Your task to perform on an android device: create a new album in the google photos Image 0: 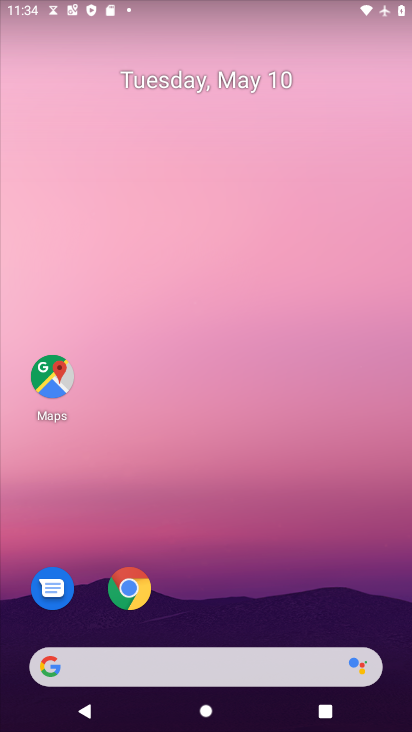
Step 0: drag from (275, 616) to (201, 93)
Your task to perform on an android device: create a new album in the google photos Image 1: 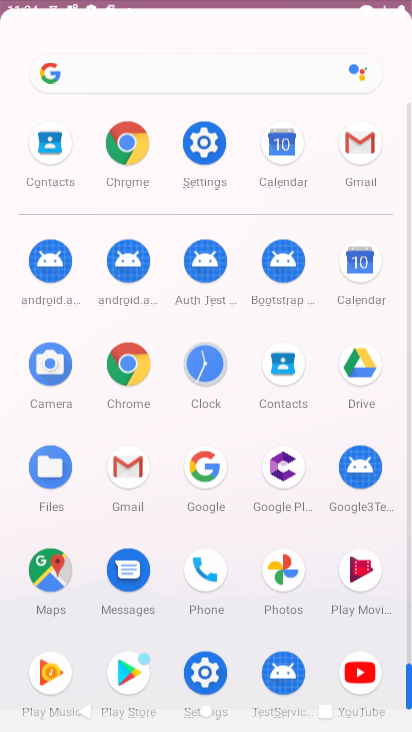
Step 1: drag from (293, 504) to (230, 101)
Your task to perform on an android device: create a new album in the google photos Image 2: 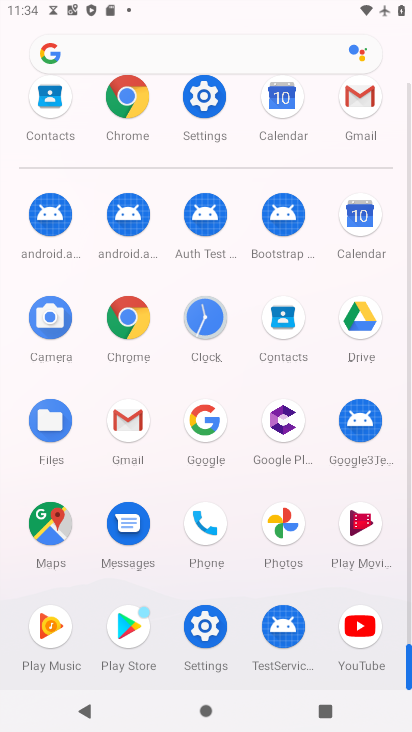
Step 2: drag from (286, 497) to (281, 533)
Your task to perform on an android device: create a new album in the google photos Image 3: 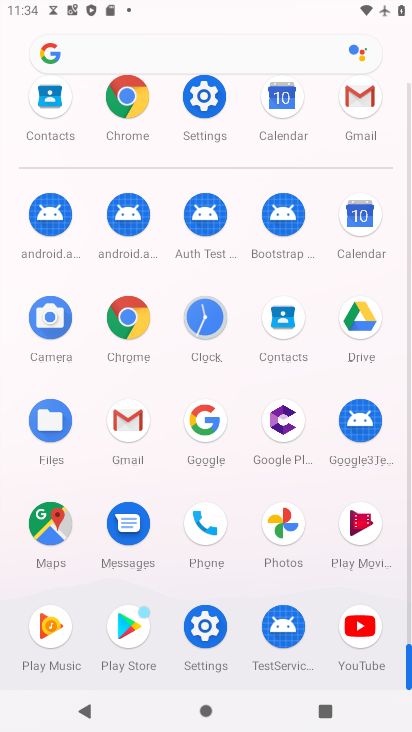
Step 3: click (281, 526)
Your task to perform on an android device: create a new album in the google photos Image 4: 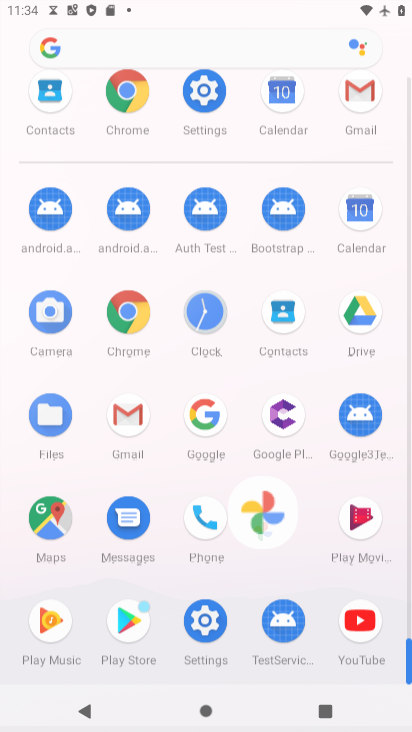
Step 4: click (281, 526)
Your task to perform on an android device: create a new album in the google photos Image 5: 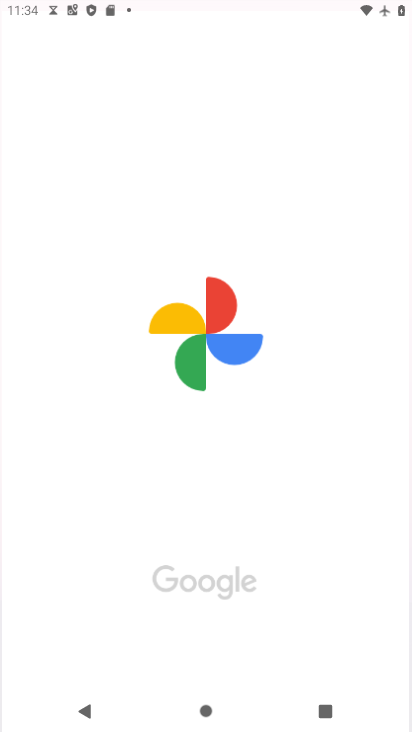
Step 5: click (281, 525)
Your task to perform on an android device: create a new album in the google photos Image 6: 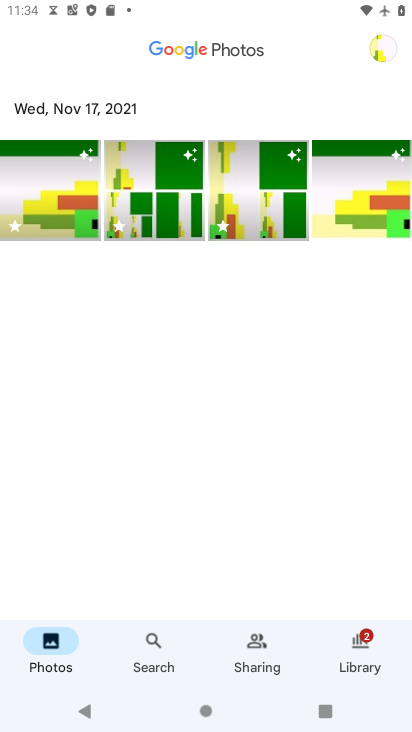
Step 6: drag from (165, 532) to (179, 114)
Your task to perform on an android device: create a new album in the google photos Image 7: 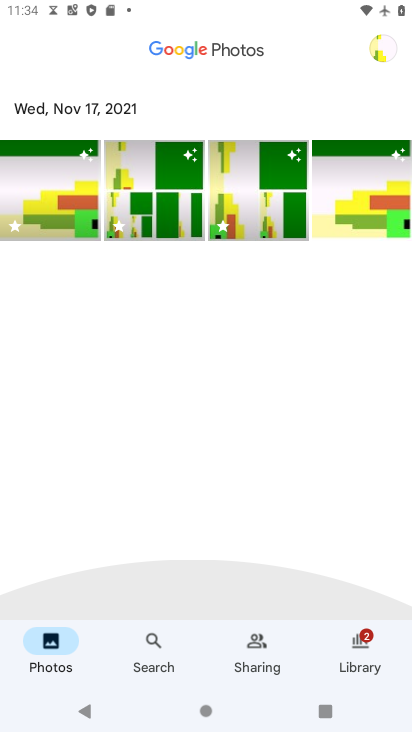
Step 7: drag from (208, 360) to (203, 121)
Your task to perform on an android device: create a new album in the google photos Image 8: 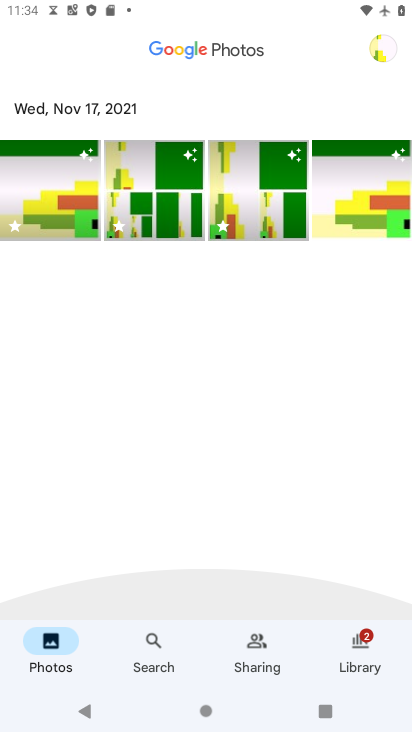
Step 8: drag from (210, 393) to (188, 183)
Your task to perform on an android device: create a new album in the google photos Image 9: 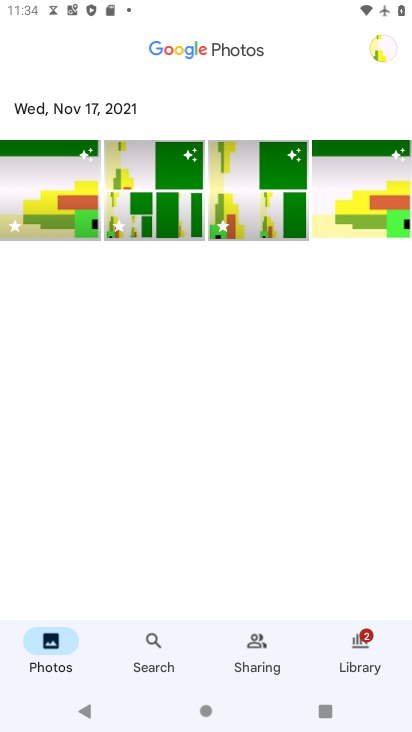
Step 9: click (373, 48)
Your task to perform on an android device: create a new album in the google photos Image 10: 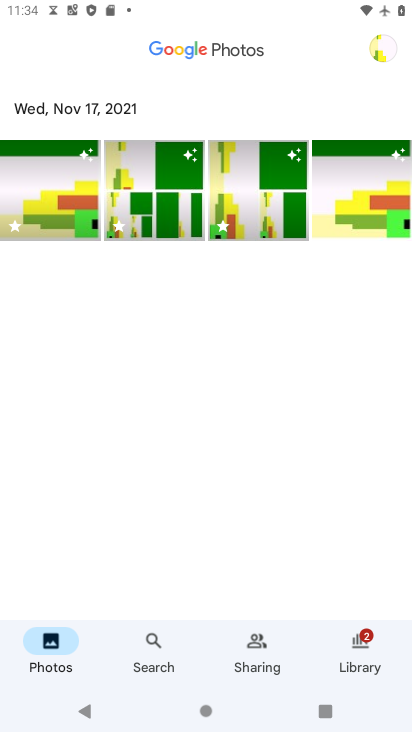
Step 10: click (376, 48)
Your task to perform on an android device: create a new album in the google photos Image 11: 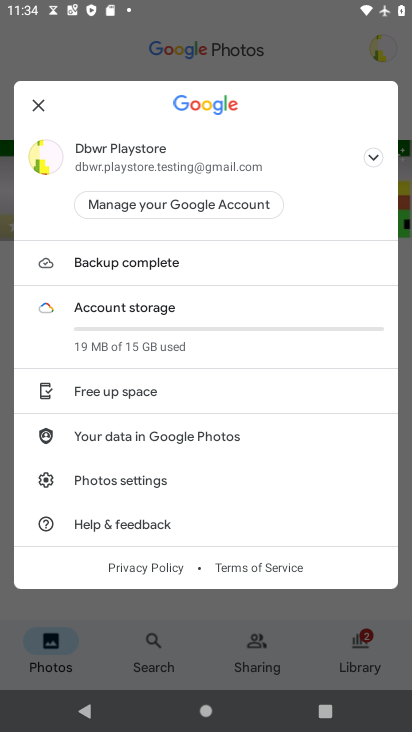
Step 11: drag from (165, 529) to (179, 143)
Your task to perform on an android device: create a new album in the google photos Image 12: 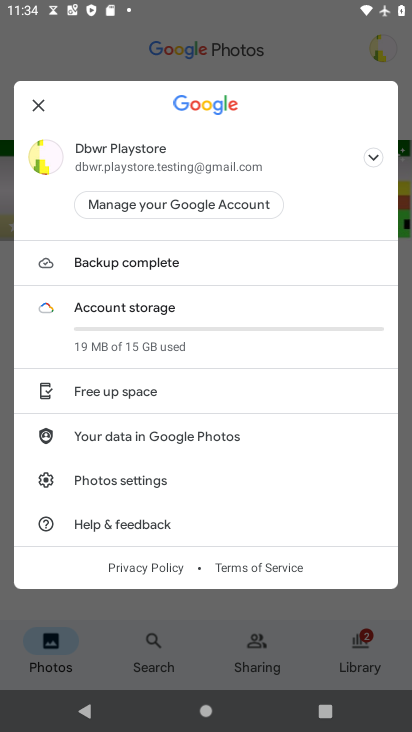
Step 12: click (297, 39)
Your task to perform on an android device: create a new album in the google photos Image 13: 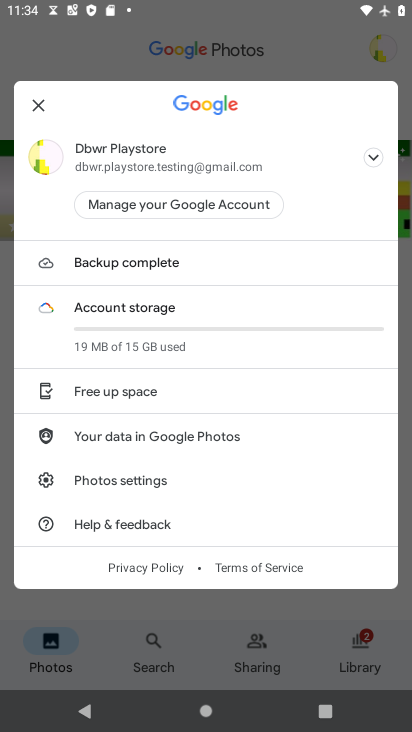
Step 13: click (297, 39)
Your task to perform on an android device: create a new album in the google photos Image 14: 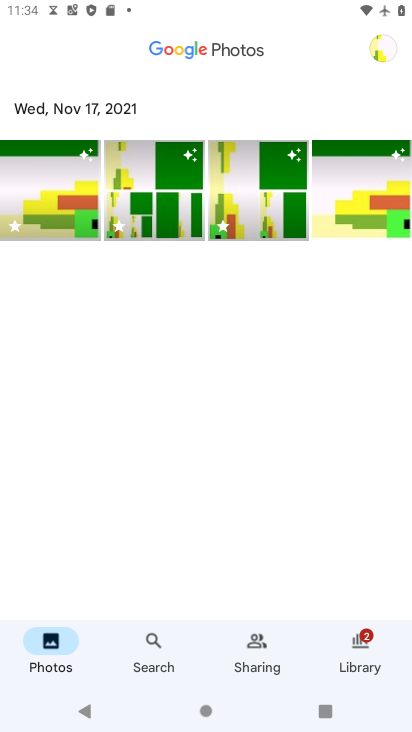
Step 14: task complete